Your task to perform on an android device: change the clock display to digital Image 0: 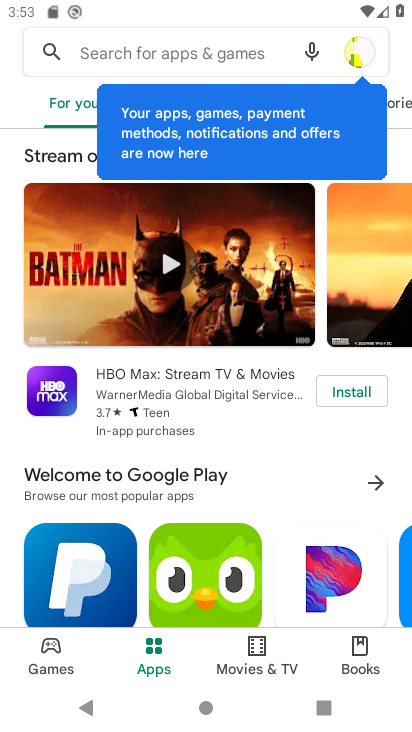
Step 0: press home button
Your task to perform on an android device: change the clock display to digital Image 1: 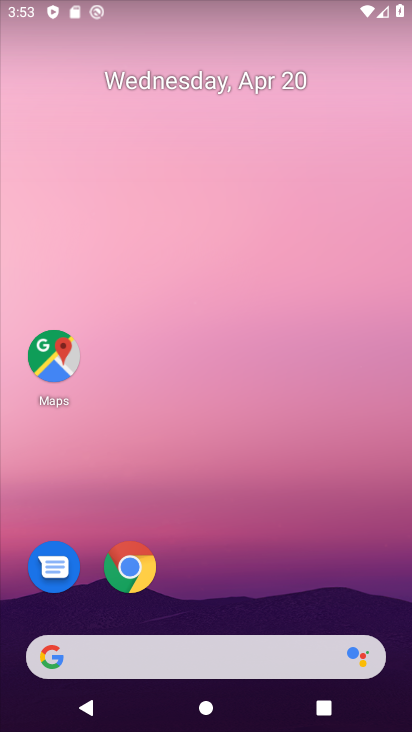
Step 1: drag from (298, 562) to (316, 214)
Your task to perform on an android device: change the clock display to digital Image 2: 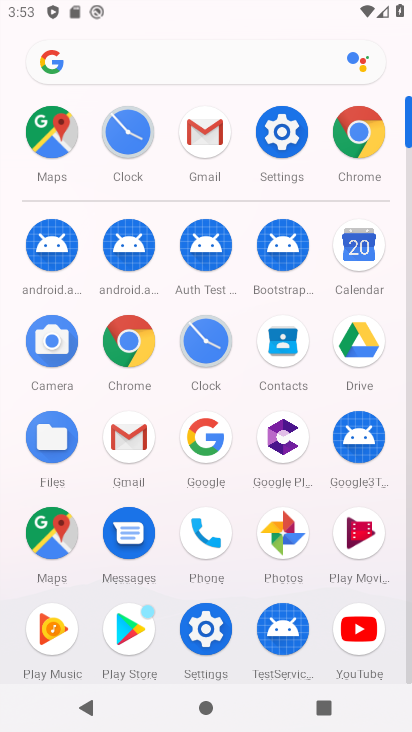
Step 2: click (135, 143)
Your task to perform on an android device: change the clock display to digital Image 3: 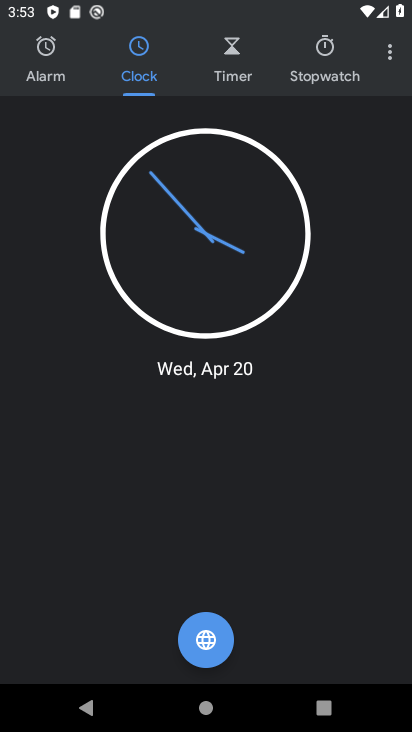
Step 3: click (391, 53)
Your task to perform on an android device: change the clock display to digital Image 4: 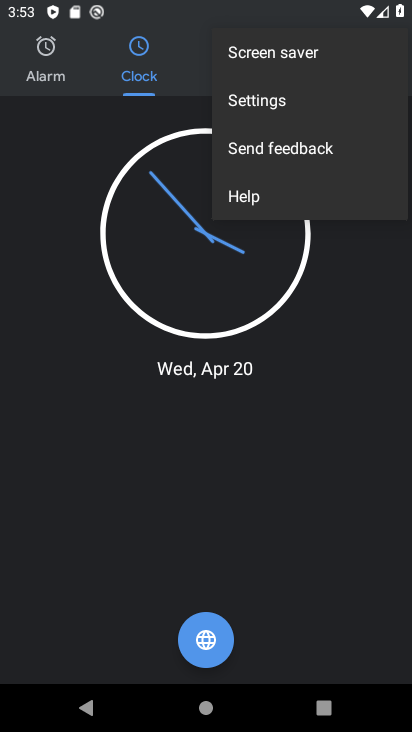
Step 4: click (344, 99)
Your task to perform on an android device: change the clock display to digital Image 5: 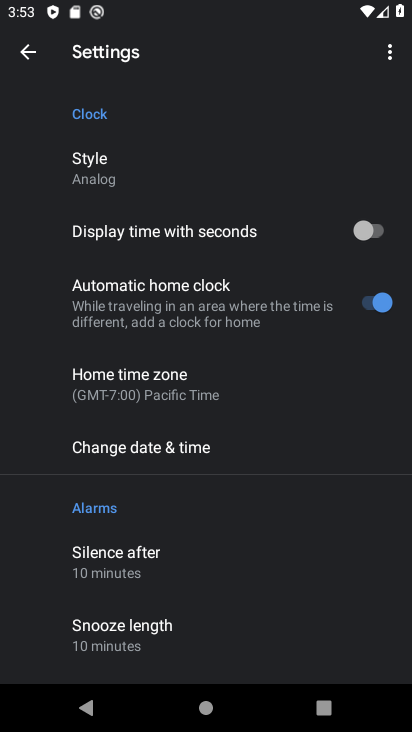
Step 5: click (269, 178)
Your task to perform on an android device: change the clock display to digital Image 6: 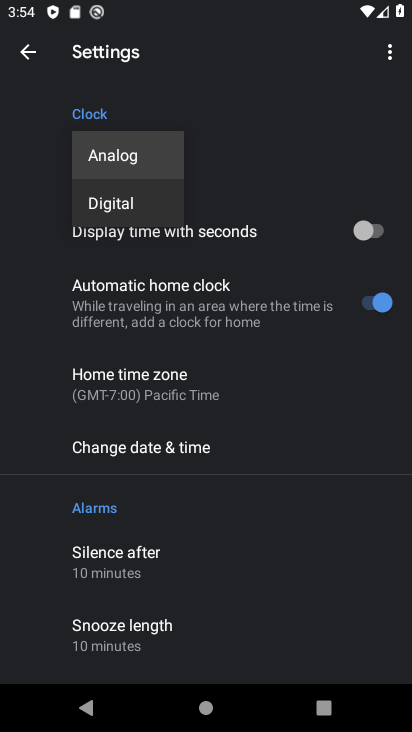
Step 6: click (159, 213)
Your task to perform on an android device: change the clock display to digital Image 7: 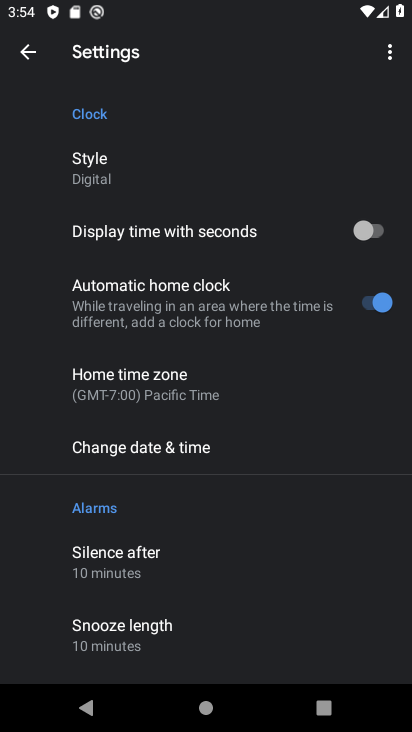
Step 7: task complete